Your task to perform on an android device: Open the calendar app, open the side menu, and click the "Day" option Image 0: 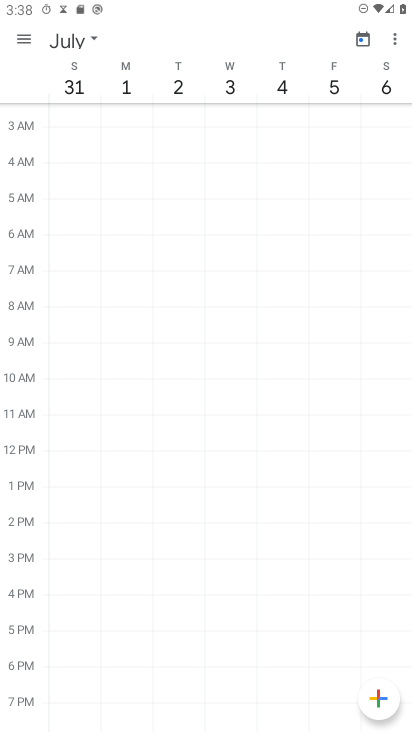
Step 0: press home button
Your task to perform on an android device: Open the calendar app, open the side menu, and click the "Day" option Image 1: 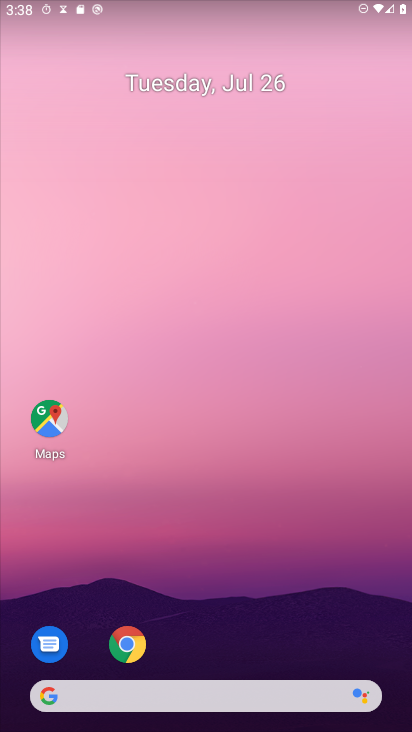
Step 1: drag from (242, 622) to (281, 80)
Your task to perform on an android device: Open the calendar app, open the side menu, and click the "Day" option Image 2: 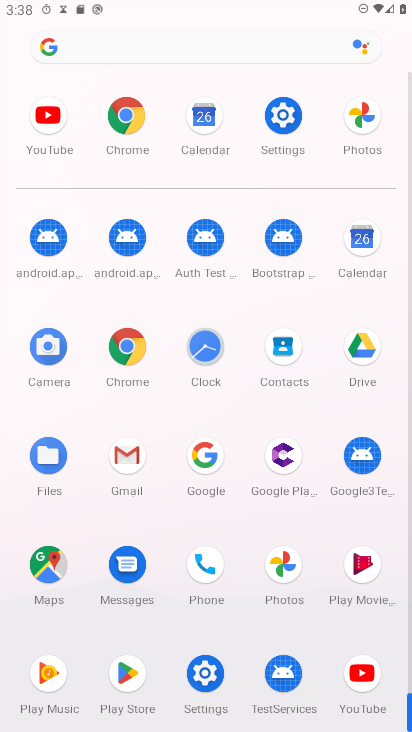
Step 2: click (358, 253)
Your task to perform on an android device: Open the calendar app, open the side menu, and click the "Day" option Image 3: 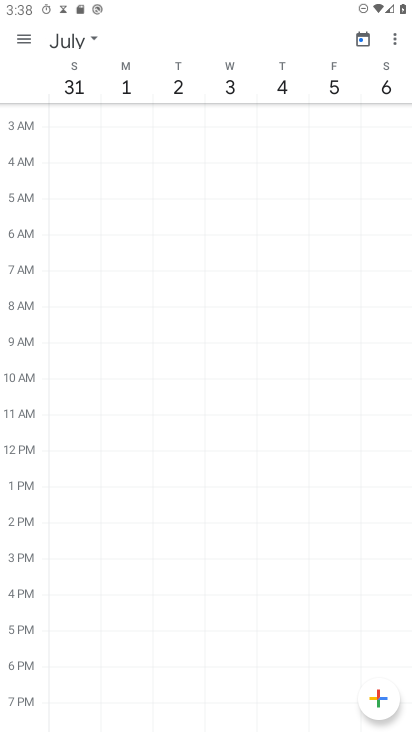
Step 3: click (30, 30)
Your task to perform on an android device: Open the calendar app, open the side menu, and click the "Day" option Image 4: 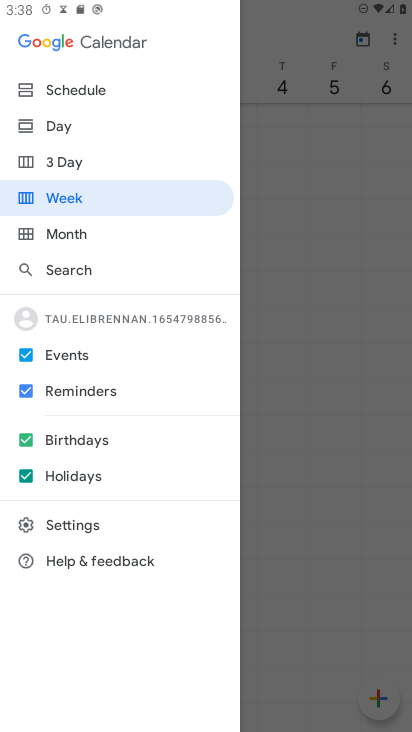
Step 4: click (73, 129)
Your task to perform on an android device: Open the calendar app, open the side menu, and click the "Day" option Image 5: 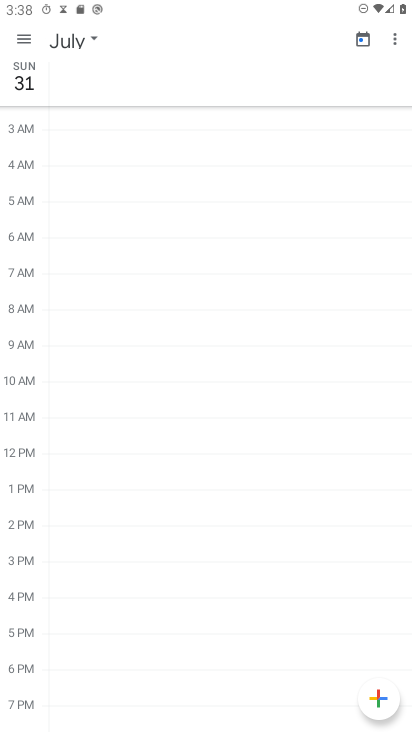
Step 5: task complete